Your task to perform on an android device: See recent photos Image 0: 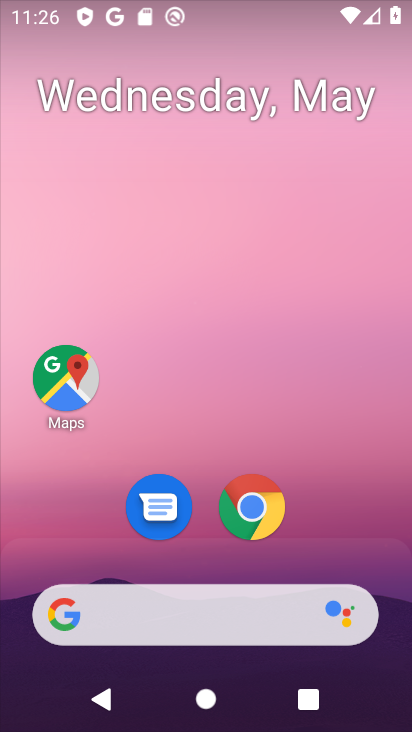
Step 0: drag from (330, 528) to (283, 123)
Your task to perform on an android device: See recent photos Image 1: 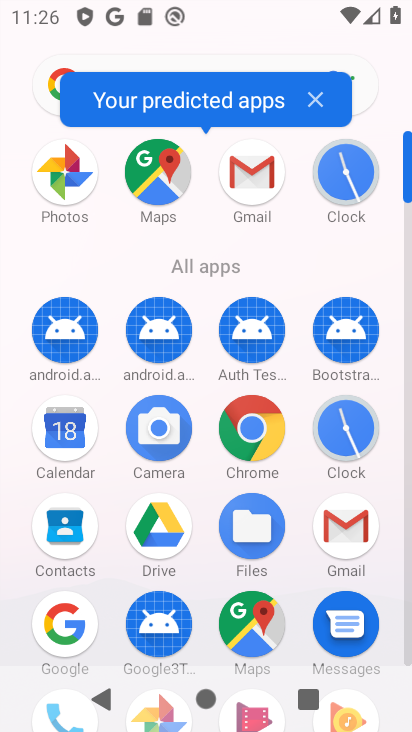
Step 1: click (404, 666)
Your task to perform on an android device: See recent photos Image 2: 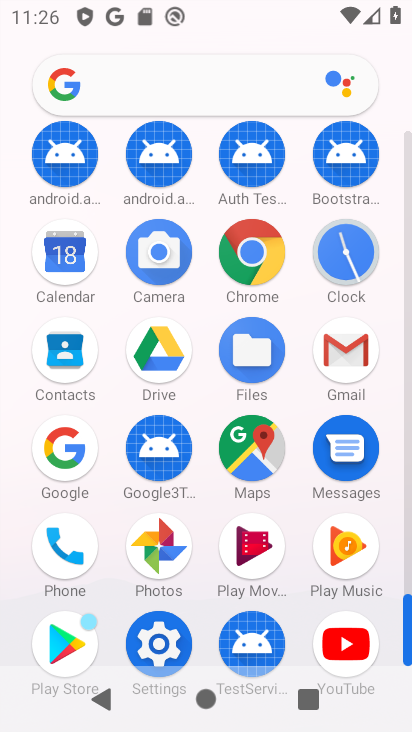
Step 2: click (179, 575)
Your task to perform on an android device: See recent photos Image 3: 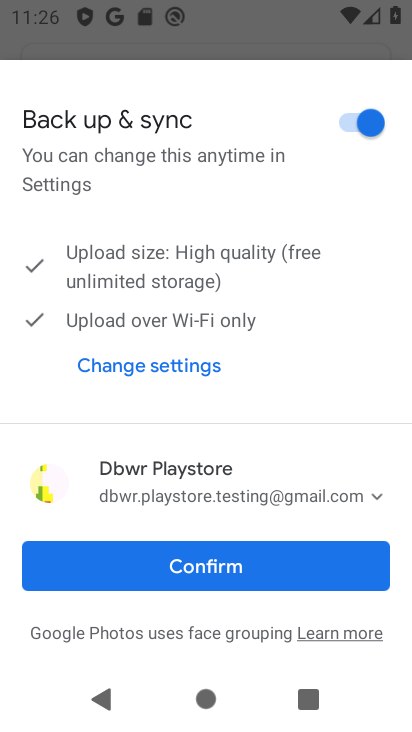
Step 3: click (179, 575)
Your task to perform on an android device: See recent photos Image 4: 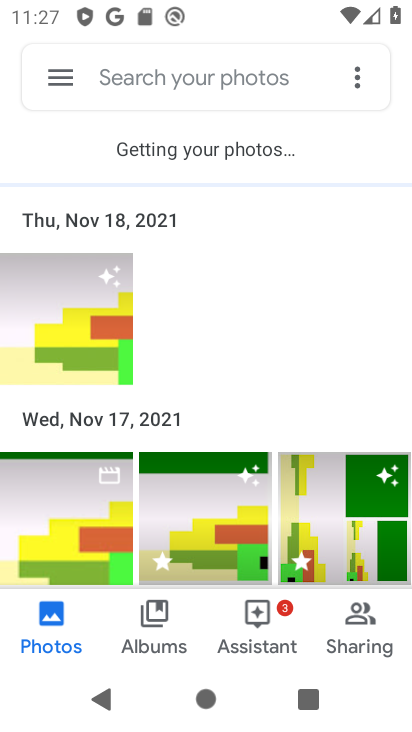
Step 4: task complete